Your task to perform on an android device: see tabs open on other devices in the chrome app Image 0: 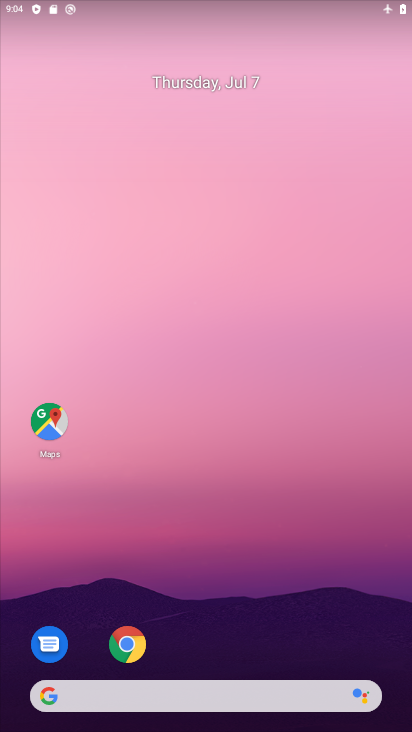
Step 0: click (121, 650)
Your task to perform on an android device: see tabs open on other devices in the chrome app Image 1: 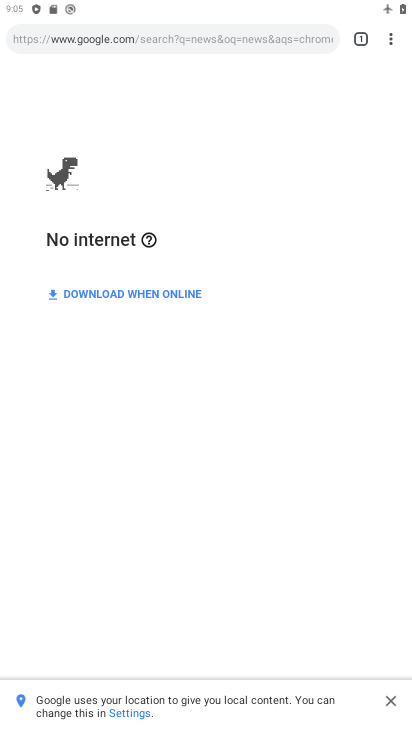
Step 1: click (388, 43)
Your task to perform on an android device: see tabs open on other devices in the chrome app Image 2: 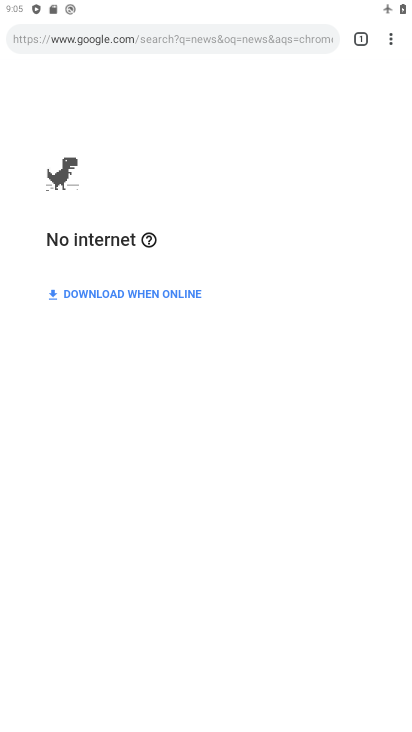
Step 2: click (388, 43)
Your task to perform on an android device: see tabs open on other devices in the chrome app Image 3: 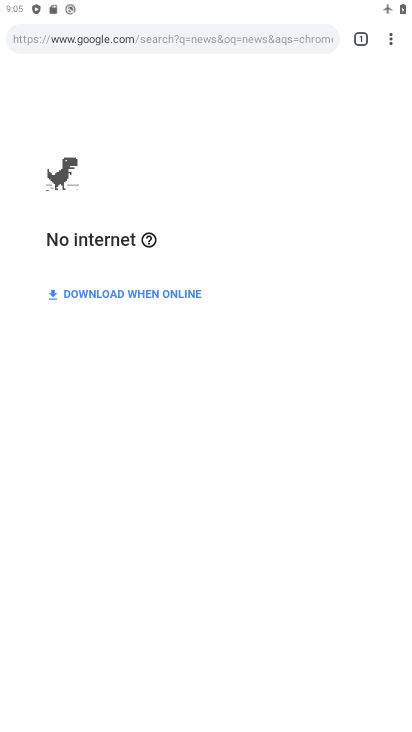
Step 3: task complete